Your task to perform on an android device: Open Yahoo.com Image 0: 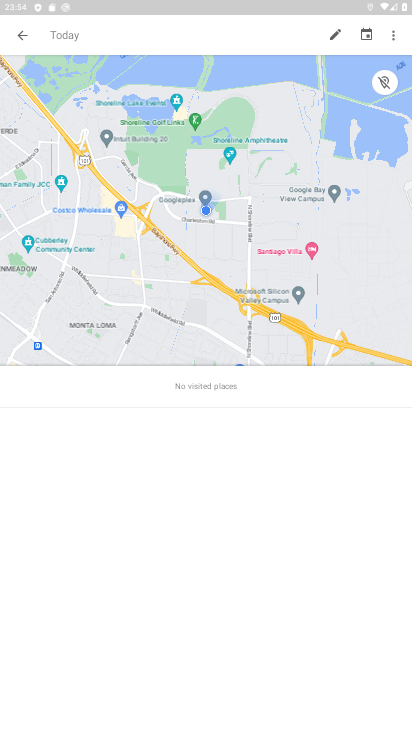
Step 0: press home button
Your task to perform on an android device: Open Yahoo.com Image 1: 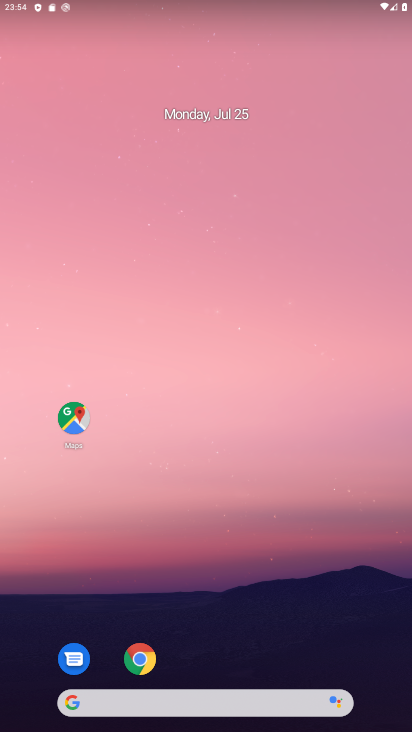
Step 1: drag from (298, 580) to (269, 114)
Your task to perform on an android device: Open Yahoo.com Image 2: 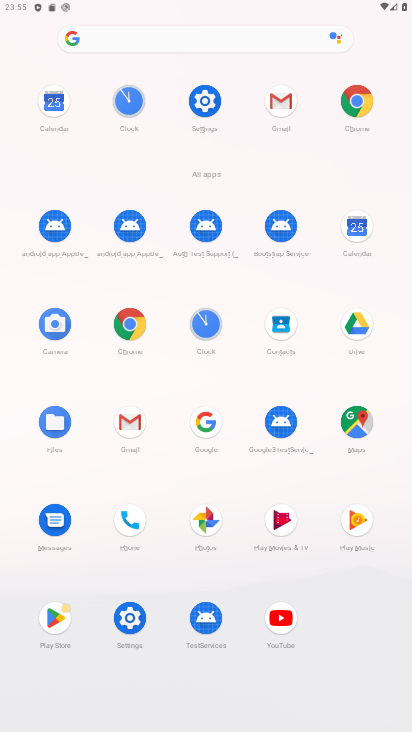
Step 2: click (358, 99)
Your task to perform on an android device: Open Yahoo.com Image 3: 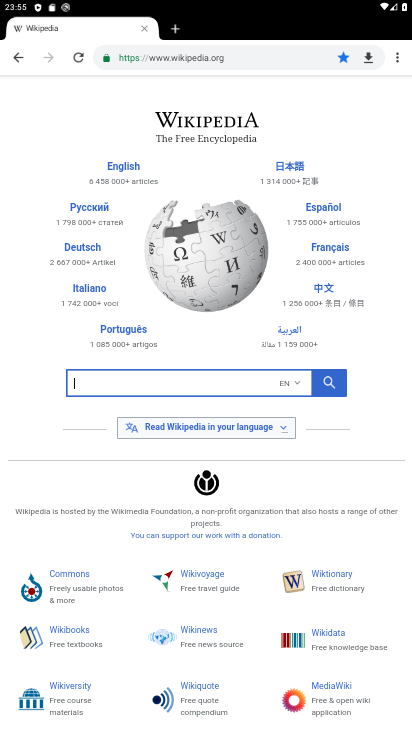
Step 3: click (203, 64)
Your task to perform on an android device: Open Yahoo.com Image 4: 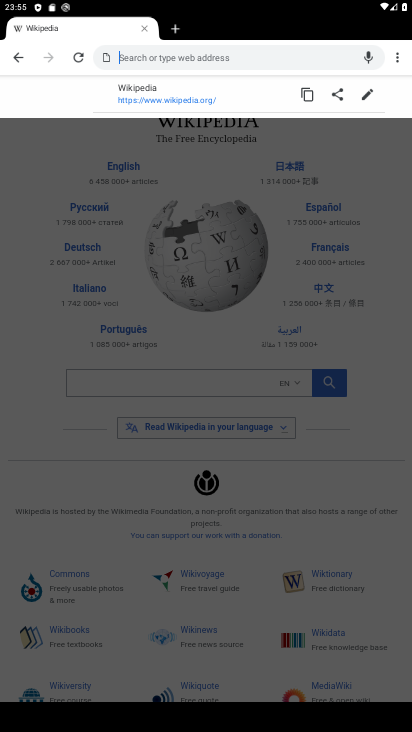
Step 4: type "yahoo.com"
Your task to perform on an android device: Open Yahoo.com Image 5: 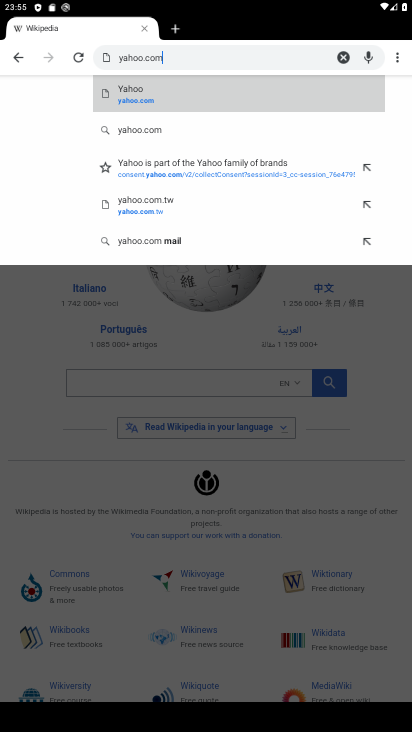
Step 5: click (163, 82)
Your task to perform on an android device: Open Yahoo.com Image 6: 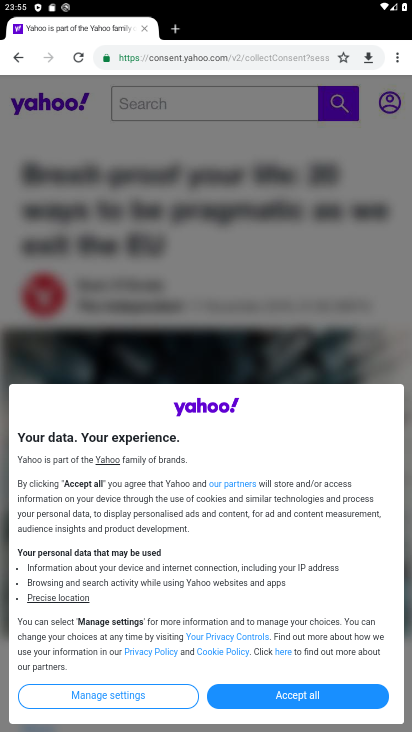
Step 6: task complete